Your task to perform on an android device: Open Google Maps Image 0: 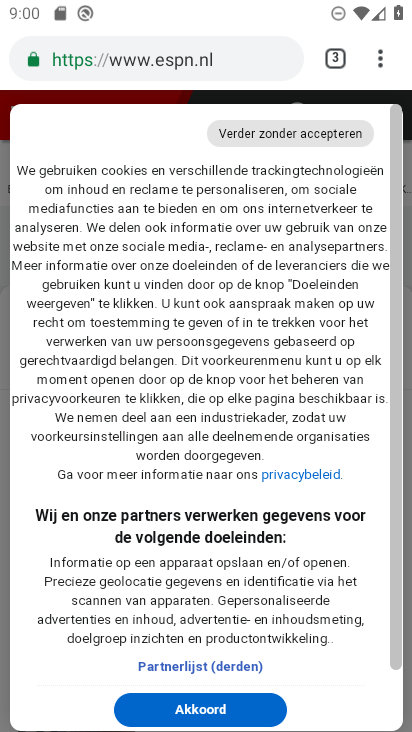
Step 0: press home button
Your task to perform on an android device: Open Google Maps Image 1: 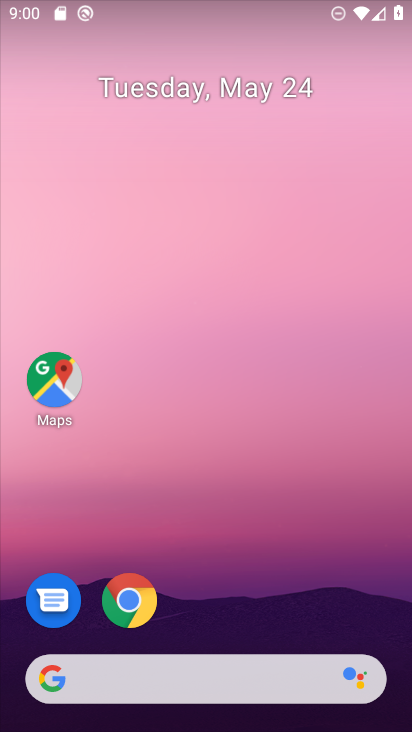
Step 1: click (71, 404)
Your task to perform on an android device: Open Google Maps Image 2: 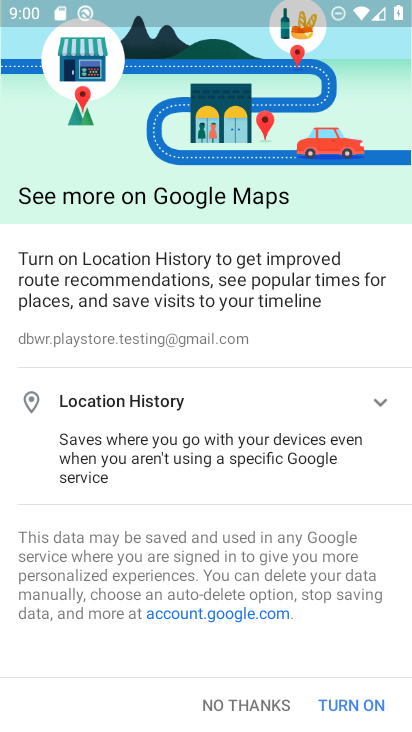
Step 2: click (363, 700)
Your task to perform on an android device: Open Google Maps Image 3: 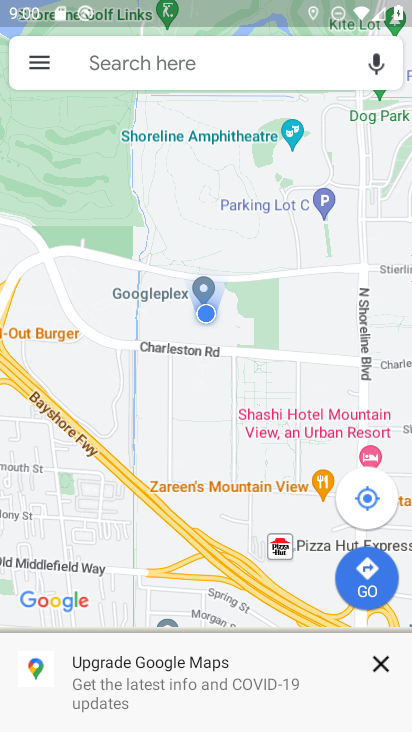
Step 3: task complete